Your task to perform on an android device: Open accessibility settings Image 0: 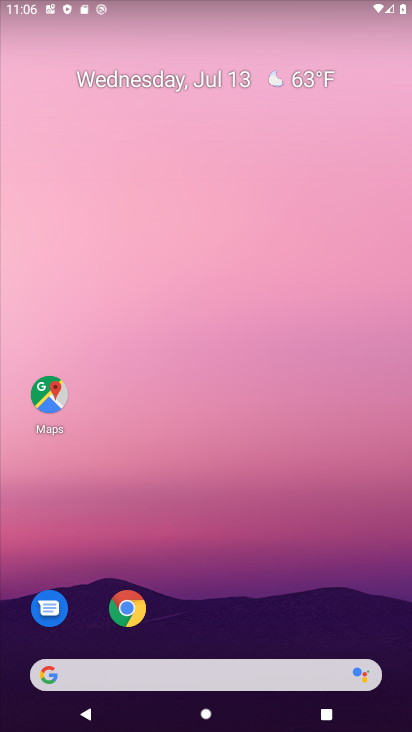
Step 0: press home button
Your task to perform on an android device: Open accessibility settings Image 1: 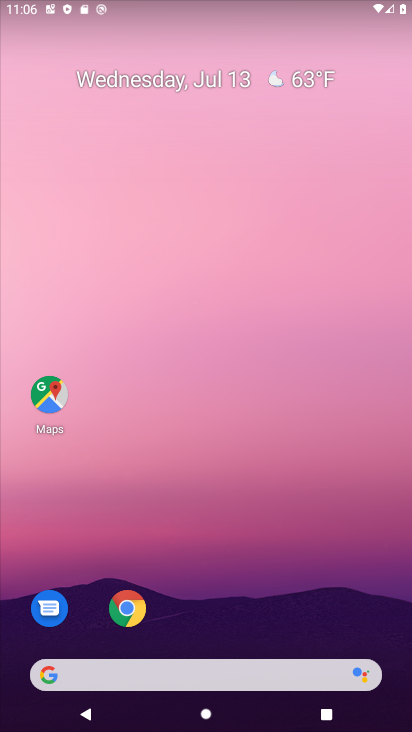
Step 1: drag from (321, 601) to (298, 42)
Your task to perform on an android device: Open accessibility settings Image 2: 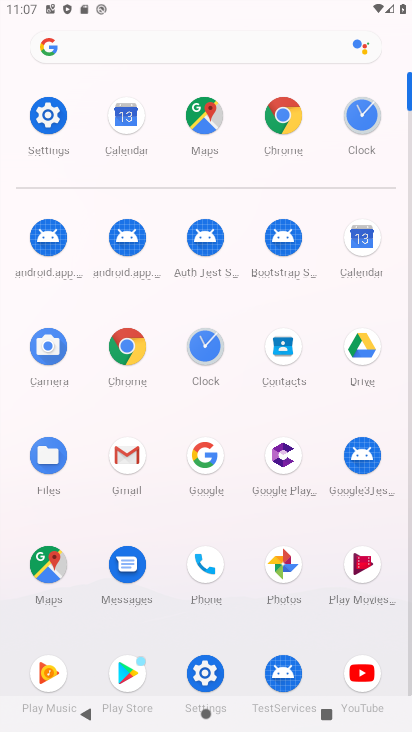
Step 2: click (46, 104)
Your task to perform on an android device: Open accessibility settings Image 3: 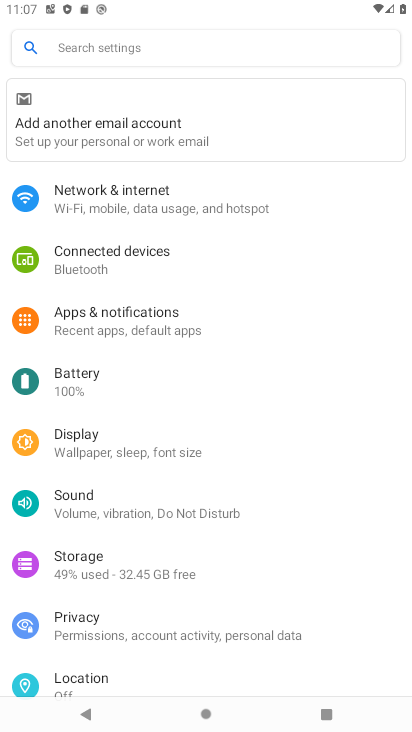
Step 3: drag from (304, 581) to (356, 70)
Your task to perform on an android device: Open accessibility settings Image 4: 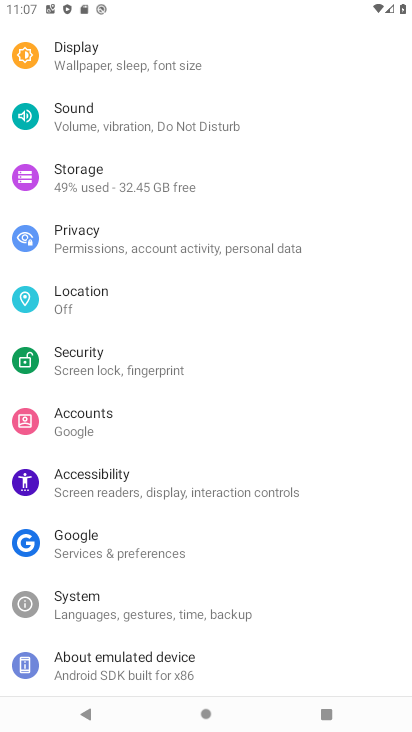
Step 4: click (197, 467)
Your task to perform on an android device: Open accessibility settings Image 5: 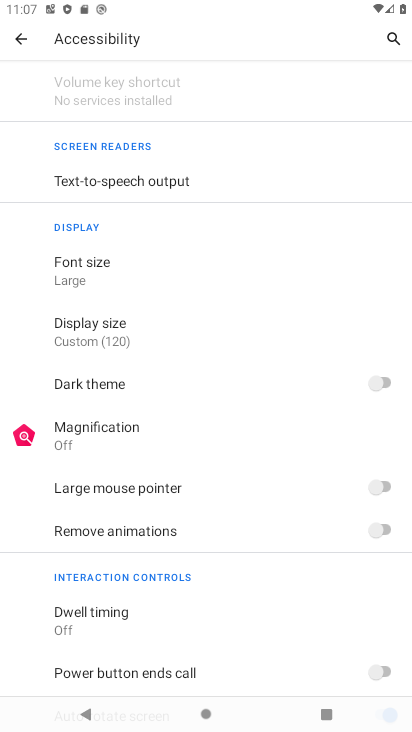
Step 5: task complete